Your task to perform on an android device: Go to CNN.com Image 0: 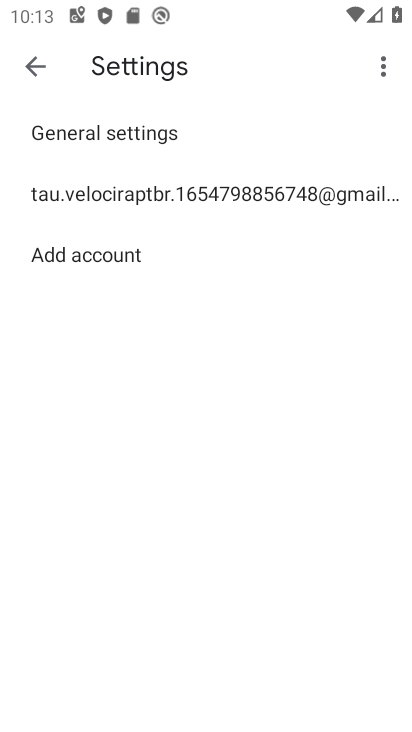
Step 0: press home button
Your task to perform on an android device: Go to CNN.com Image 1: 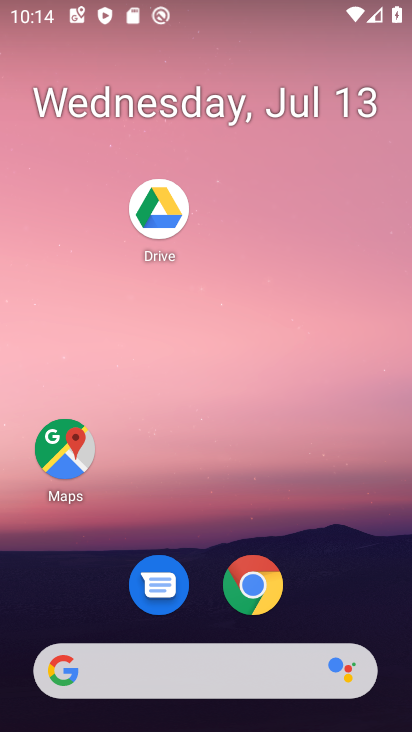
Step 1: click (249, 603)
Your task to perform on an android device: Go to CNN.com Image 2: 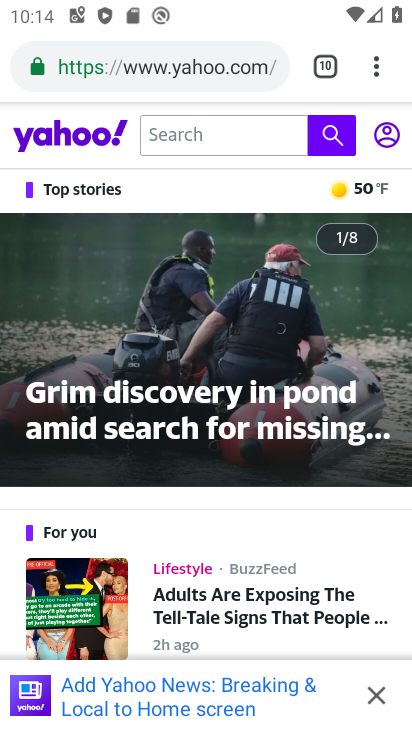
Step 2: drag from (377, 67) to (224, 125)
Your task to perform on an android device: Go to CNN.com Image 3: 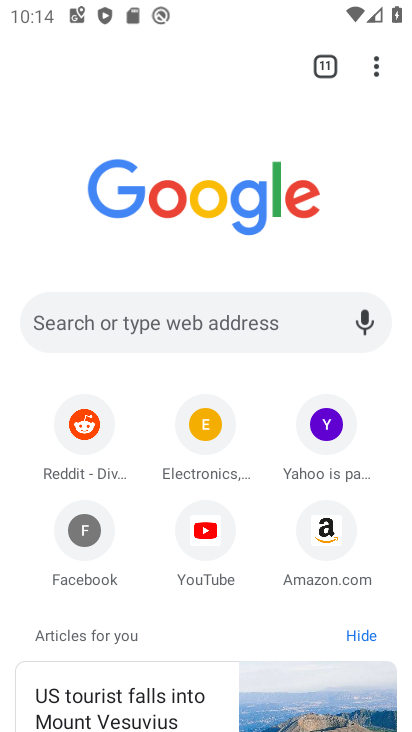
Step 3: click (160, 314)
Your task to perform on an android device: Go to CNN.com Image 4: 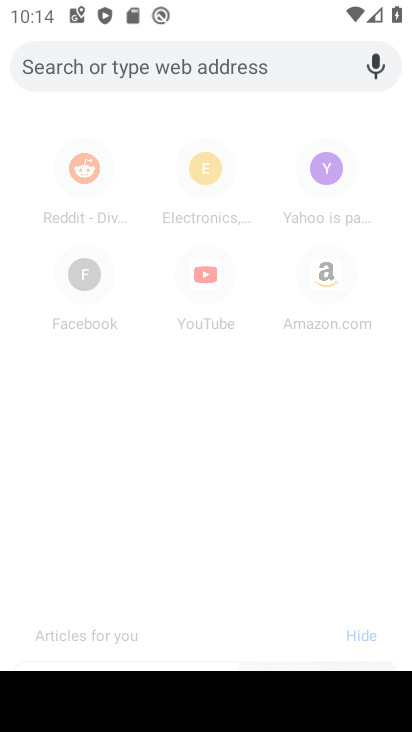
Step 4: type "cnn.com"
Your task to perform on an android device: Go to CNN.com Image 5: 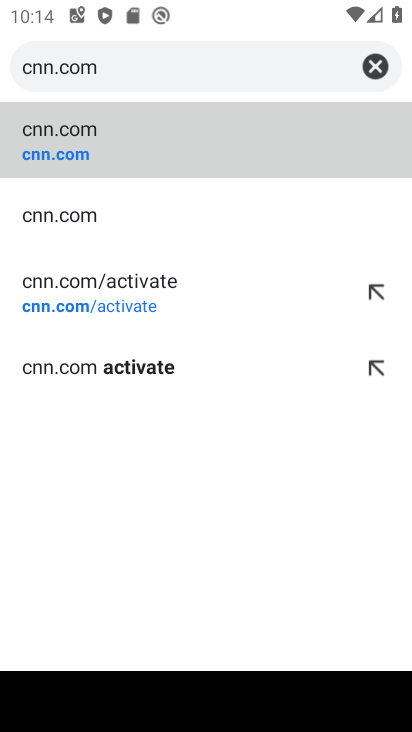
Step 5: click (81, 152)
Your task to perform on an android device: Go to CNN.com Image 6: 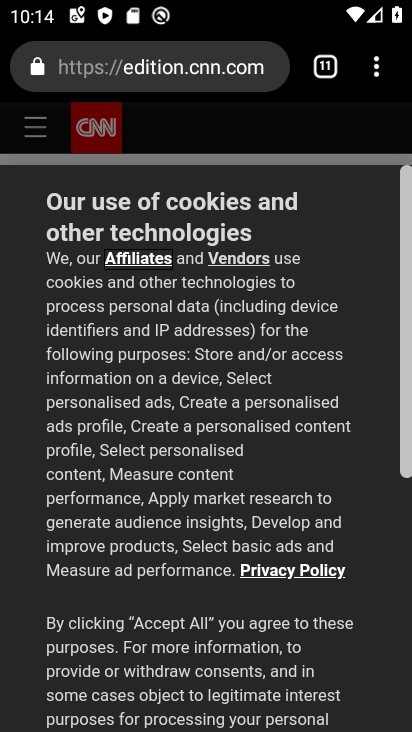
Step 6: drag from (180, 647) to (329, 228)
Your task to perform on an android device: Go to CNN.com Image 7: 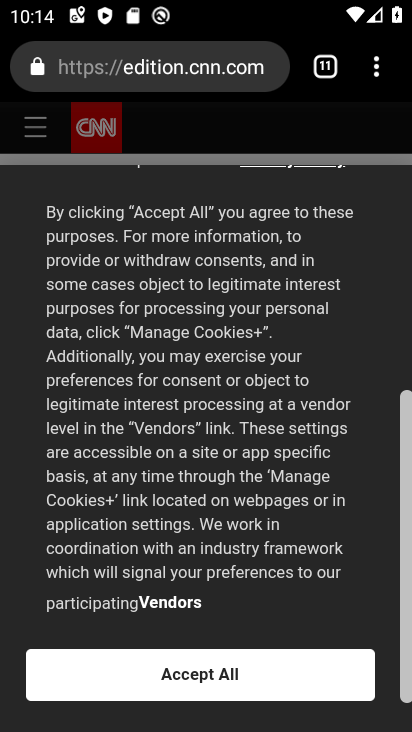
Step 7: click (226, 670)
Your task to perform on an android device: Go to CNN.com Image 8: 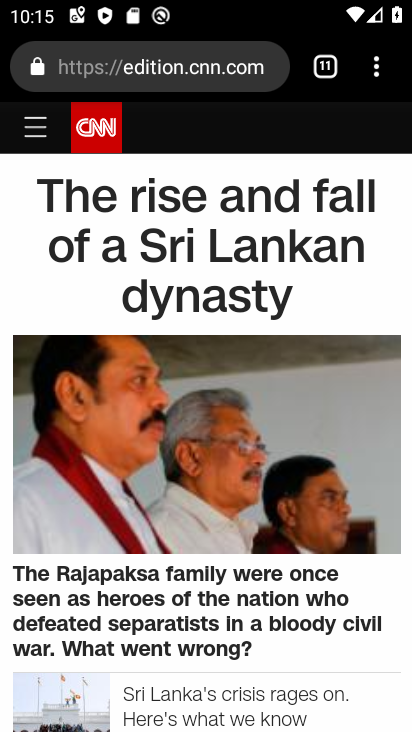
Step 8: task complete